Your task to perform on an android device: open device folders in google photos Image 0: 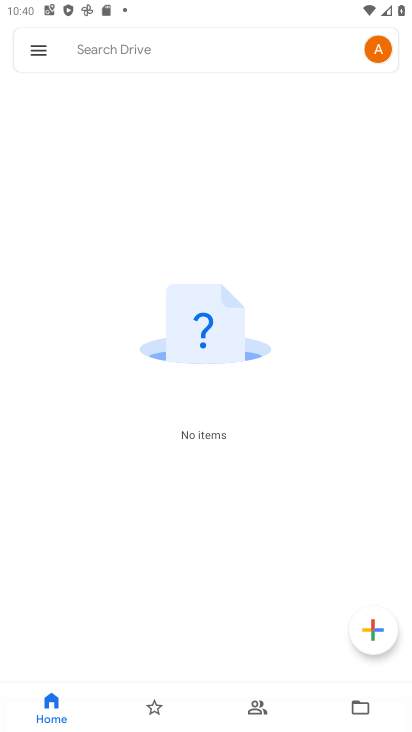
Step 0: press home button
Your task to perform on an android device: open device folders in google photos Image 1: 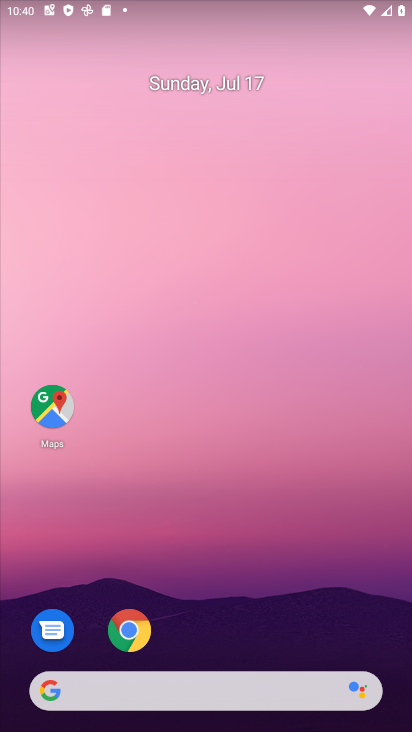
Step 1: drag from (242, 643) to (264, 114)
Your task to perform on an android device: open device folders in google photos Image 2: 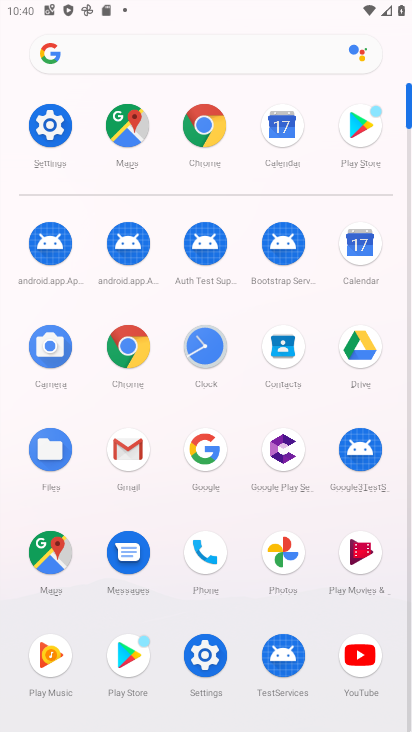
Step 2: click (293, 574)
Your task to perform on an android device: open device folders in google photos Image 3: 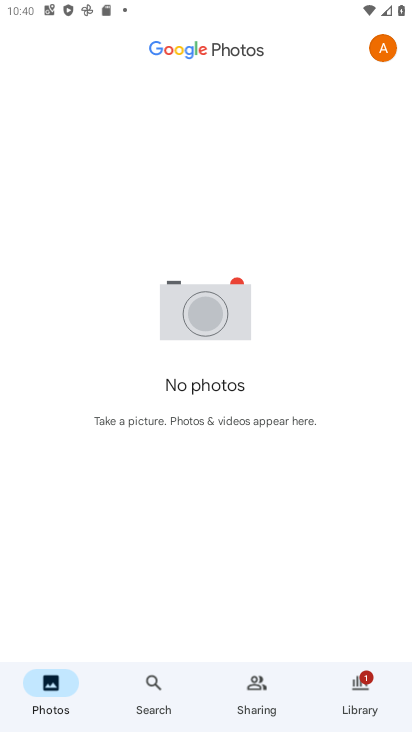
Step 3: click (379, 70)
Your task to perform on an android device: open device folders in google photos Image 4: 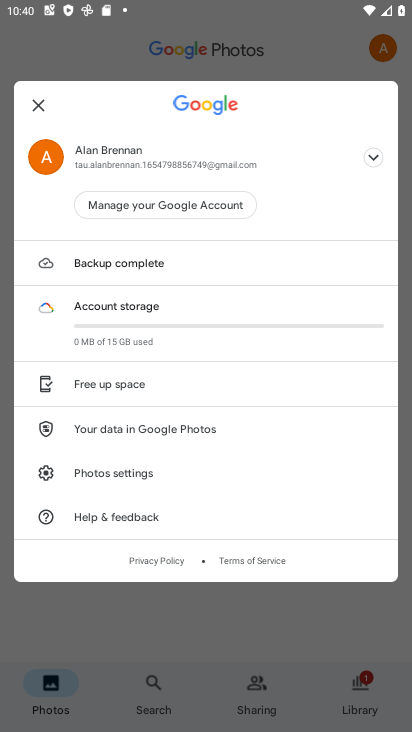
Step 4: click (123, 460)
Your task to perform on an android device: open device folders in google photos Image 5: 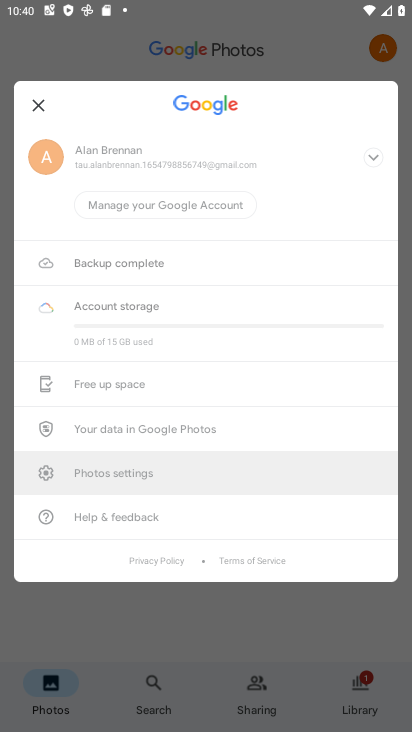
Step 5: task complete